Your task to perform on an android device: manage bookmarks in the chrome app Image 0: 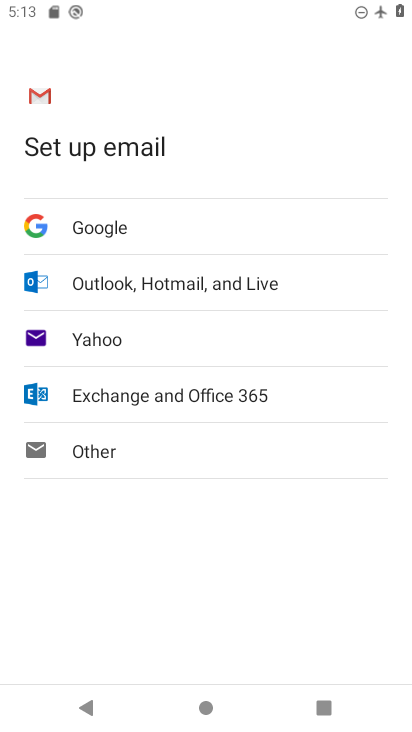
Step 0: drag from (279, 715) to (264, 194)
Your task to perform on an android device: manage bookmarks in the chrome app Image 1: 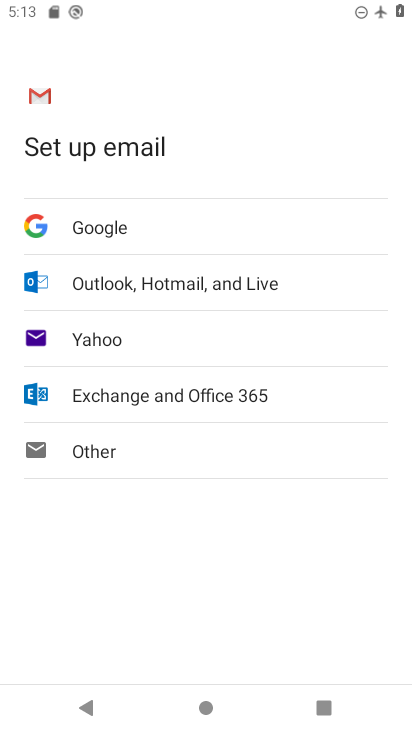
Step 1: press back button
Your task to perform on an android device: manage bookmarks in the chrome app Image 2: 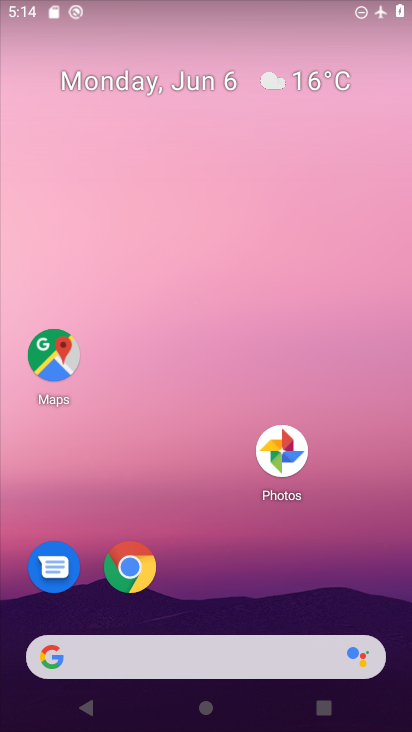
Step 2: drag from (268, 701) to (200, 137)
Your task to perform on an android device: manage bookmarks in the chrome app Image 3: 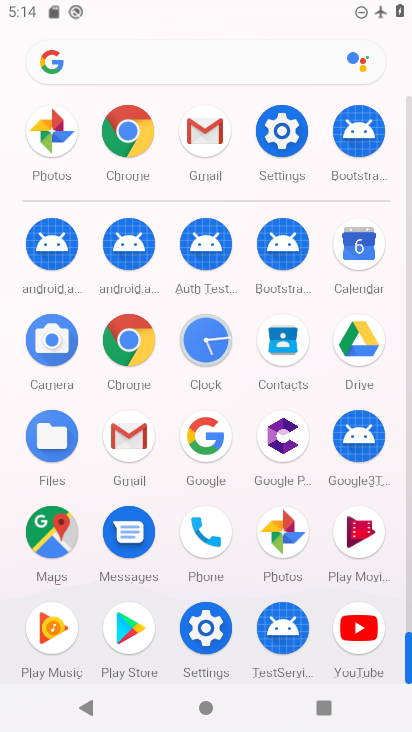
Step 3: click (122, 137)
Your task to perform on an android device: manage bookmarks in the chrome app Image 4: 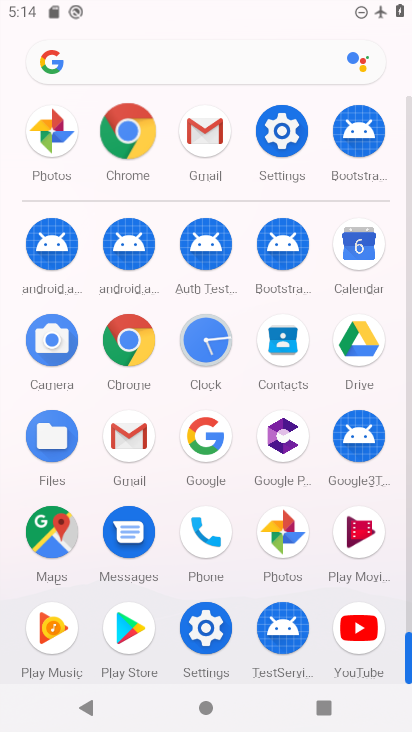
Step 4: click (122, 137)
Your task to perform on an android device: manage bookmarks in the chrome app Image 5: 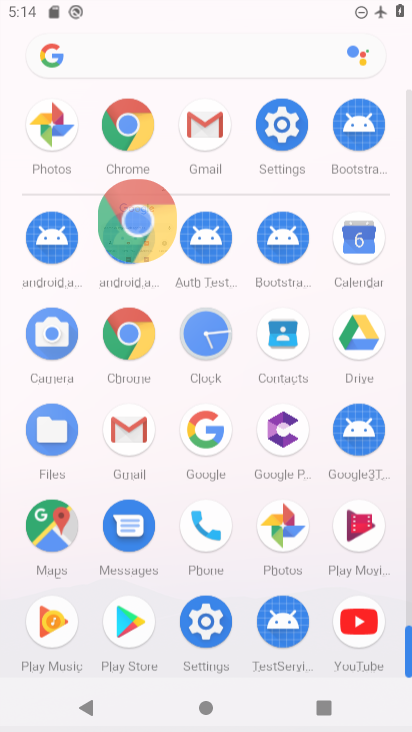
Step 5: click (122, 137)
Your task to perform on an android device: manage bookmarks in the chrome app Image 6: 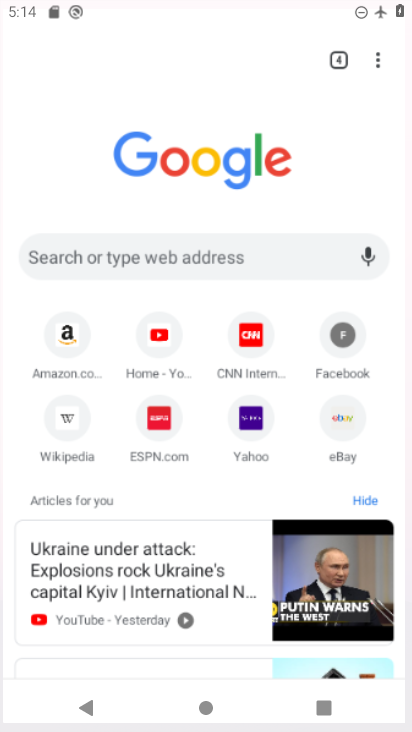
Step 6: click (122, 137)
Your task to perform on an android device: manage bookmarks in the chrome app Image 7: 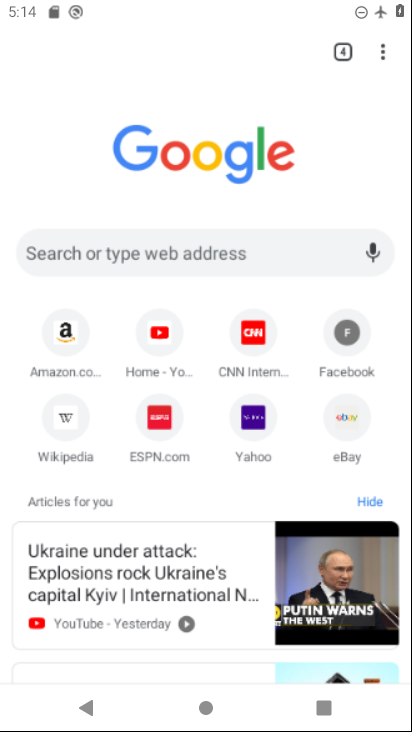
Step 7: click (120, 139)
Your task to perform on an android device: manage bookmarks in the chrome app Image 8: 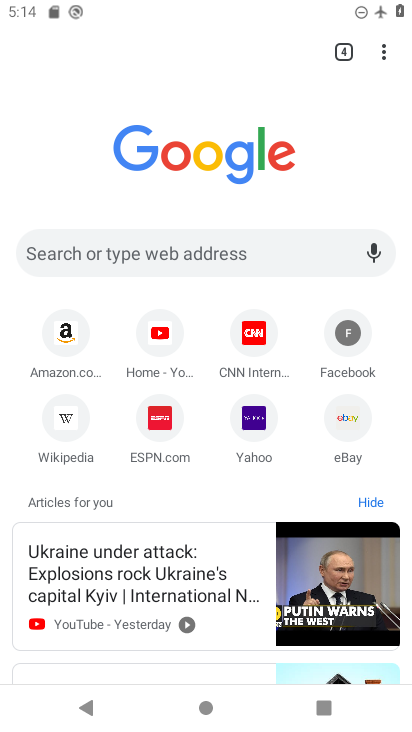
Step 8: drag from (384, 57) to (200, 184)
Your task to perform on an android device: manage bookmarks in the chrome app Image 9: 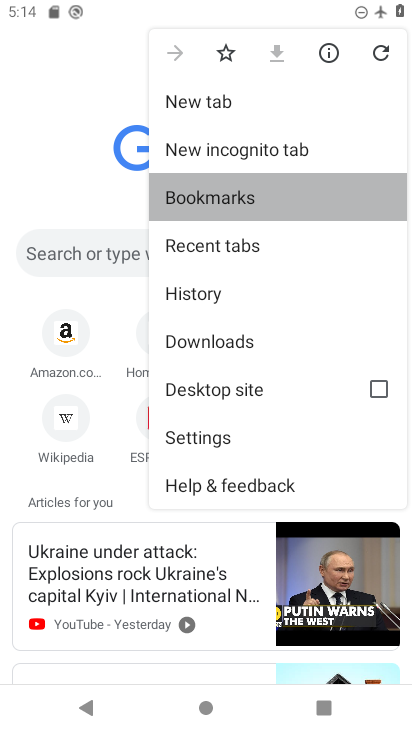
Step 9: click (200, 184)
Your task to perform on an android device: manage bookmarks in the chrome app Image 10: 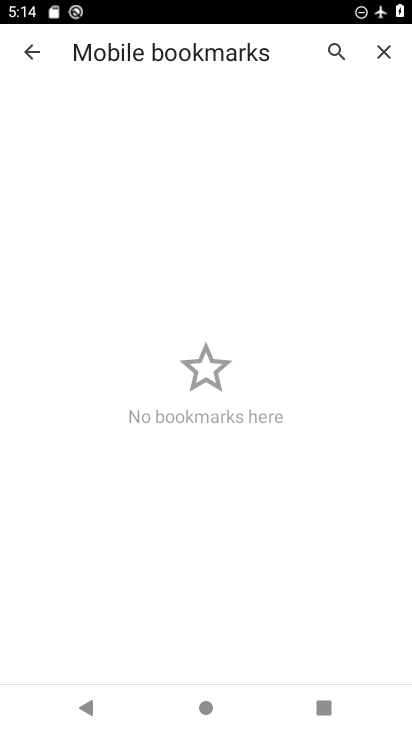
Step 10: task complete